Your task to perform on an android device: Open Google Image 0: 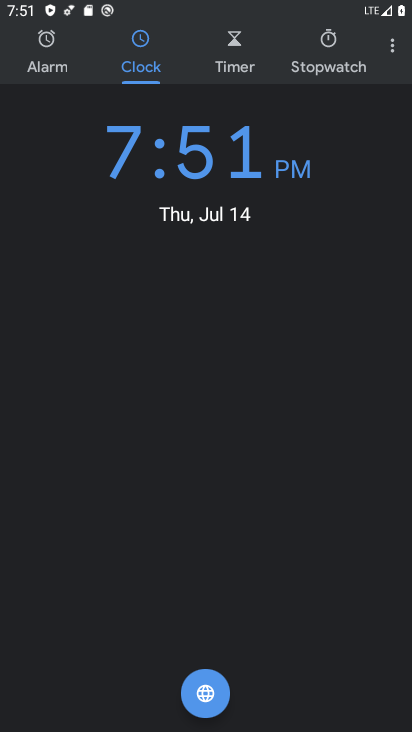
Step 0: press home button
Your task to perform on an android device: Open Google Image 1: 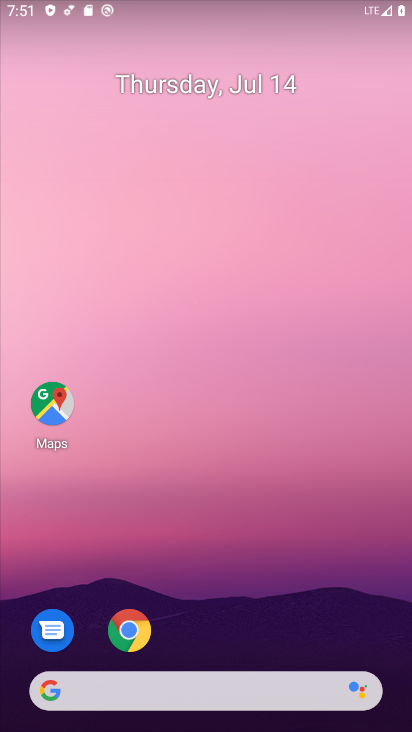
Step 1: drag from (186, 645) to (252, 227)
Your task to perform on an android device: Open Google Image 2: 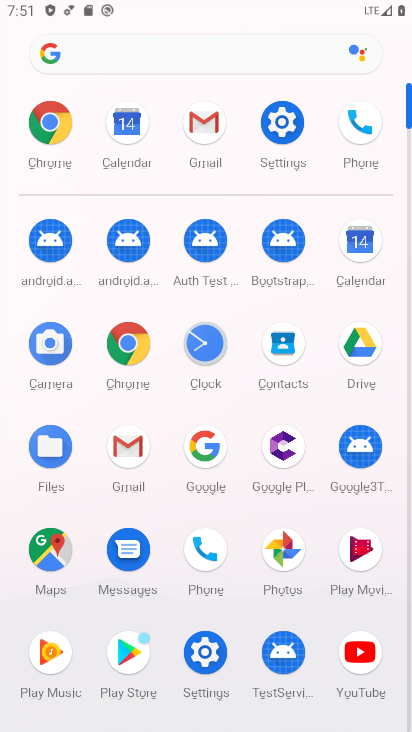
Step 2: click (201, 434)
Your task to perform on an android device: Open Google Image 3: 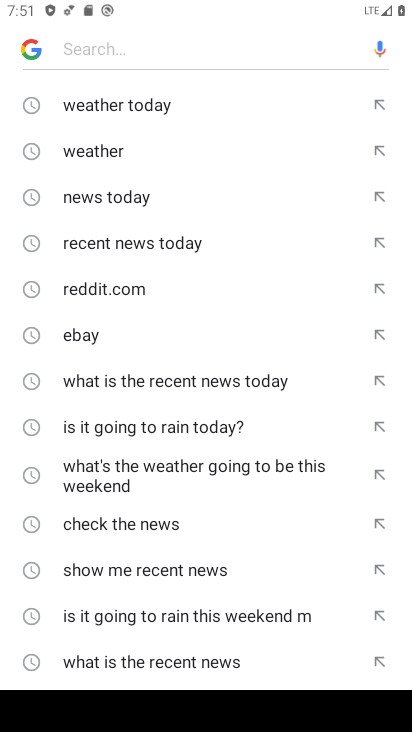
Step 3: task complete